Your task to perform on an android device: turn on improve location accuracy Image 0: 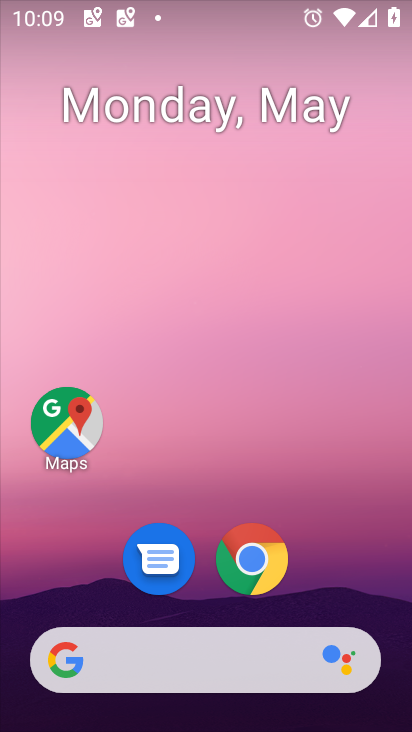
Step 0: drag from (384, 620) to (319, 63)
Your task to perform on an android device: turn on improve location accuracy Image 1: 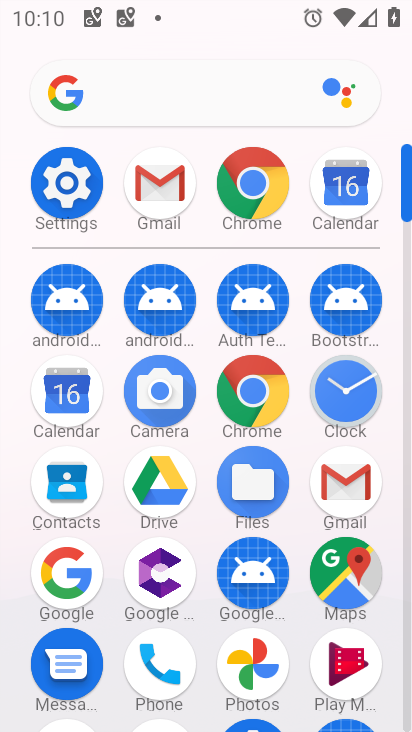
Step 1: click (64, 192)
Your task to perform on an android device: turn on improve location accuracy Image 2: 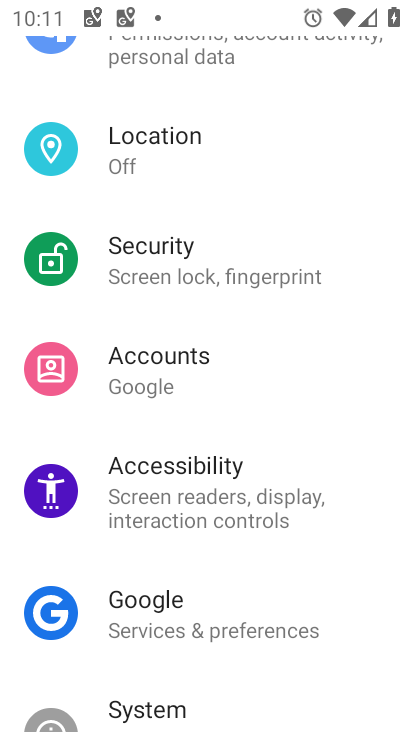
Step 2: click (182, 141)
Your task to perform on an android device: turn on improve location accuracy Image 3: 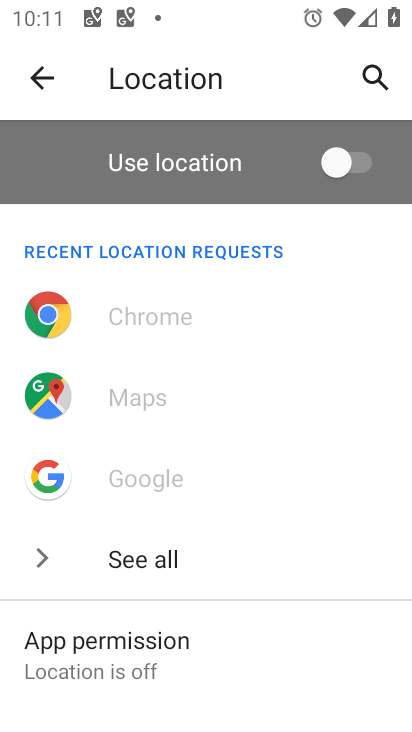
Step 3: drag from (153, 676) to (216, 285)
Your task to perform on an android device: turn on improve location accuracy Image 4: 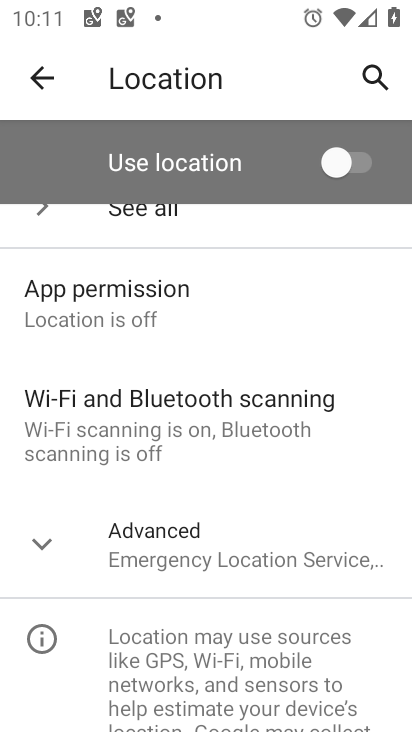
Step 4: click (161, 532)
Your task to perform on an android device: turn on improve location accuracy Image 5: 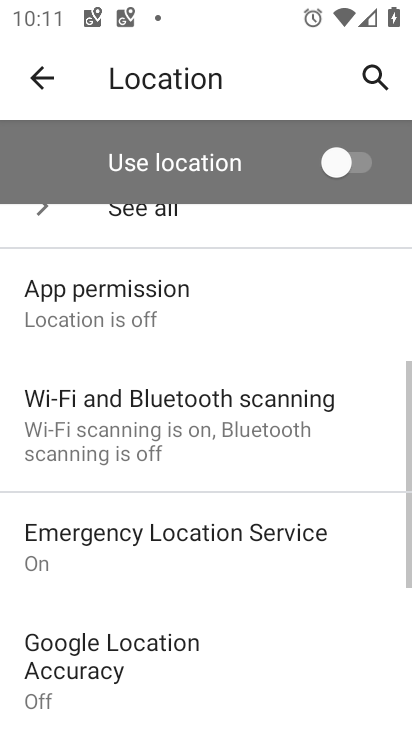
Step 5: click (158, 663)
Your task to perform on an android device: turn on improve location accuracy Image 6: 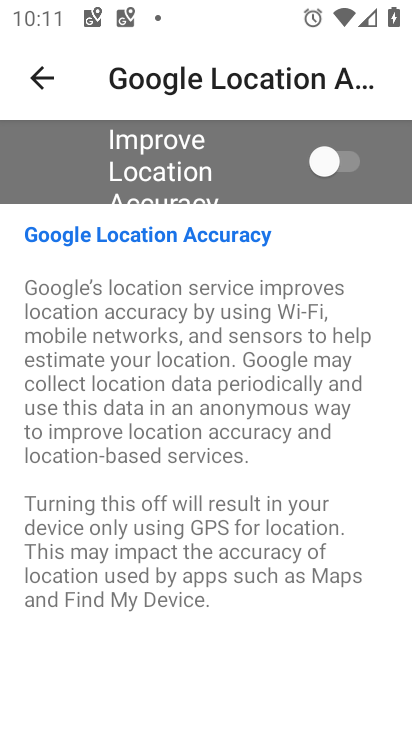
Step 6: click (331, 156)
Your task to perform on an android device: turn on improve location accuracy Image 7: 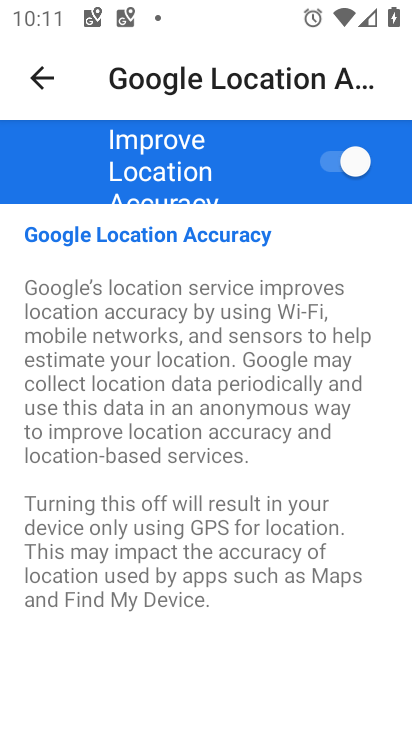
Step 7: task complete